Your task to perform on an android device: turn on showing notifications on the lock screen Image 0: 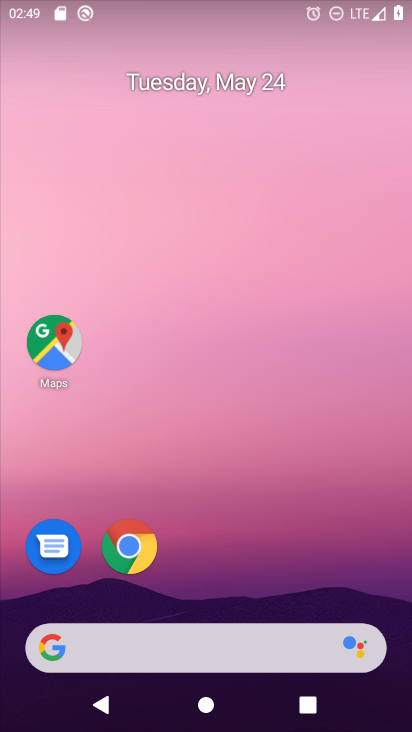
Step 0: drag from (367, 604) to (360, 94)
Your task to perform on an android device: turn on showing notifications on the lock screen Image 1: 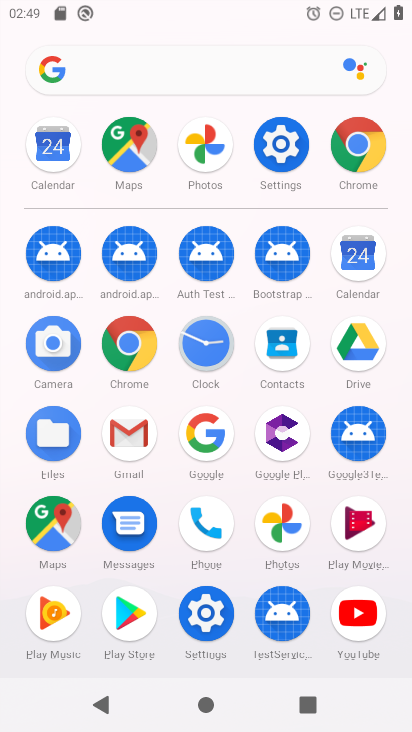
Step 1: click (283, 155)
Your task to perform on an android device: turn on showing notifications on the lock screen Image 2: 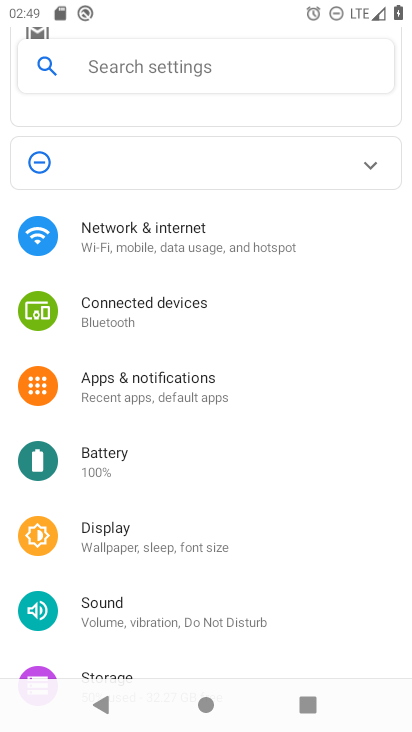
Step 2: click (191, 394)
Your task to perform on an android device: turn on showing notifications on the lock screen Image 3: 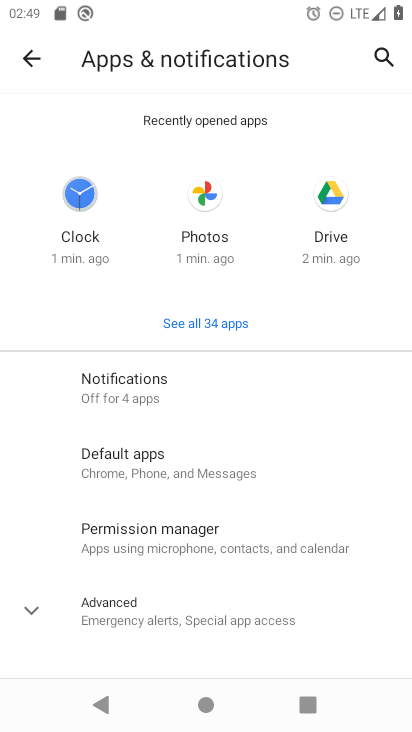
Step 3: drag from (254, 574) to (255, 268)
Your task to perform on an android device: turn on showing notifications on the lock screen Image 4: 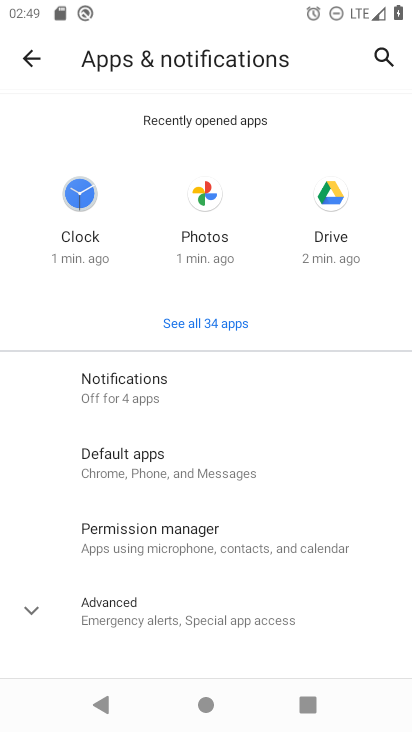
Step 4: click (163, 387)
Your task to perform on an android device: turn on showing notifications on the lock screen Image 5: 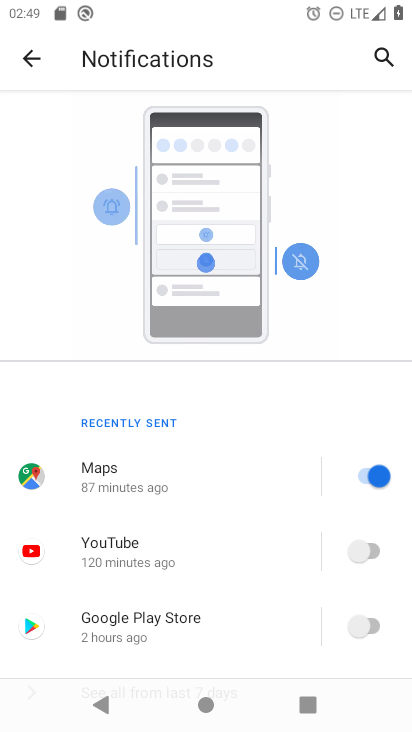
Step 5: drag from (218, 582) to (259, 13)
Your task to perform on an android device: turn on showing notifications on the lock screen Image 6: 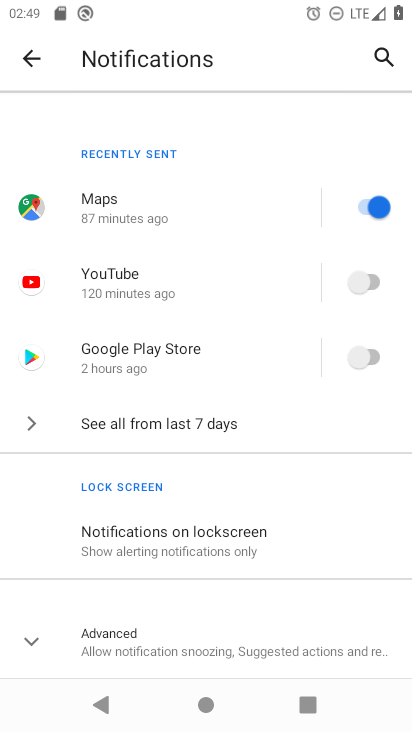
Step 6: click (236, 541)
Your task to perform on an android device: turn on showing notifications on the lock screen Image 7: 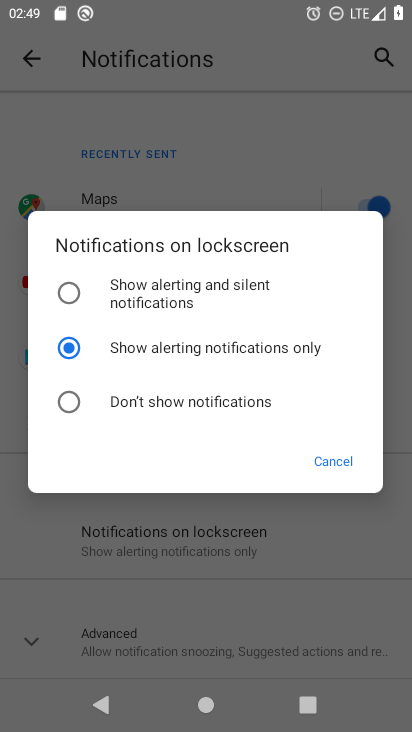
Step 7: click (79, 282)
Your task to perform on an android device: turn on showing notifications on the lock screen Image 8: 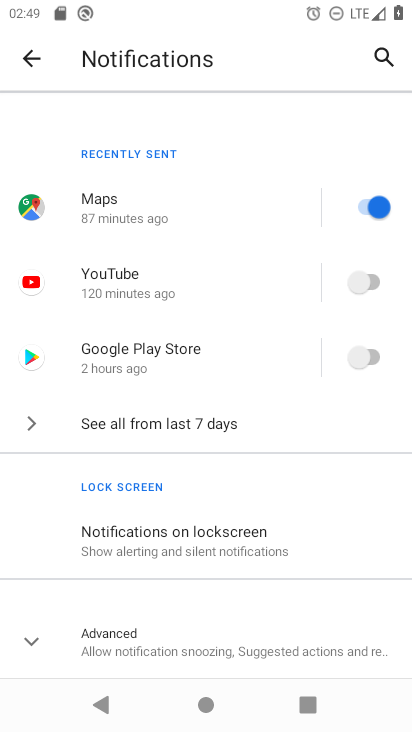
Step 8: task complete